Your task to perform on an android device: turn off javascript in the chrome app Image 0: 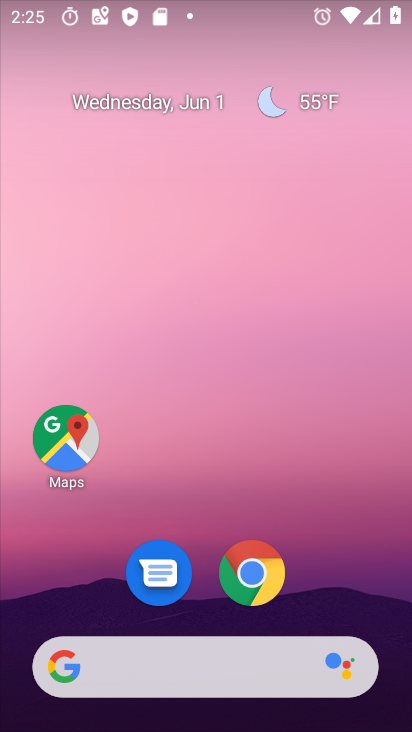
Step 0: drag from (357, 556) to (411, 106)
Your task to perform on an android device: turn off javascript in the chrome app Image 1: 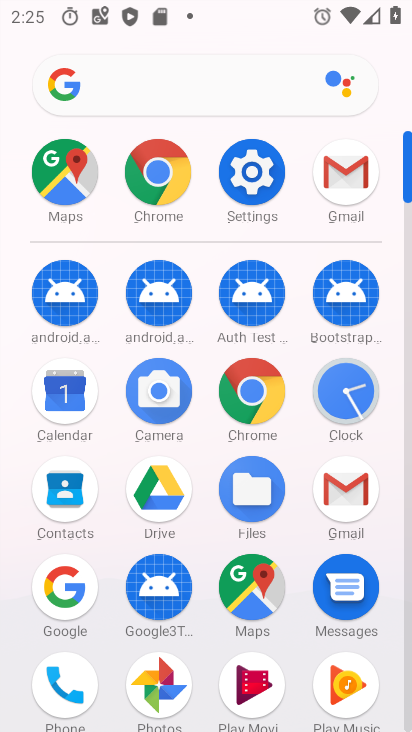
Step 1: click (137, 189)
Your task to perform on an android device: turn off javascript in the chrome app Image 2: 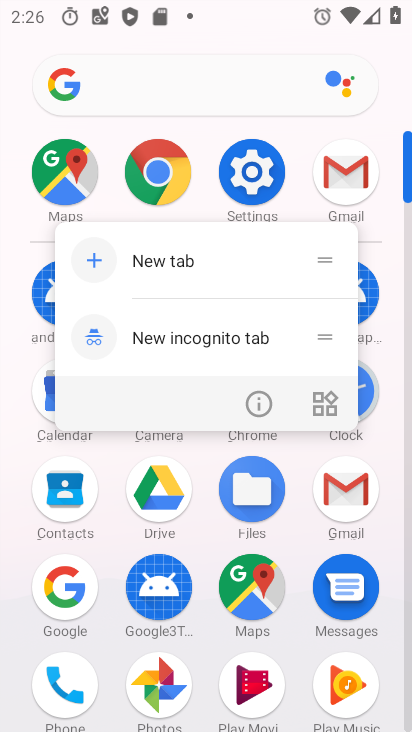
Step 2: click (144, 181)
Your task to perform on an android device: turn off javascript in the chrome app Image 3: 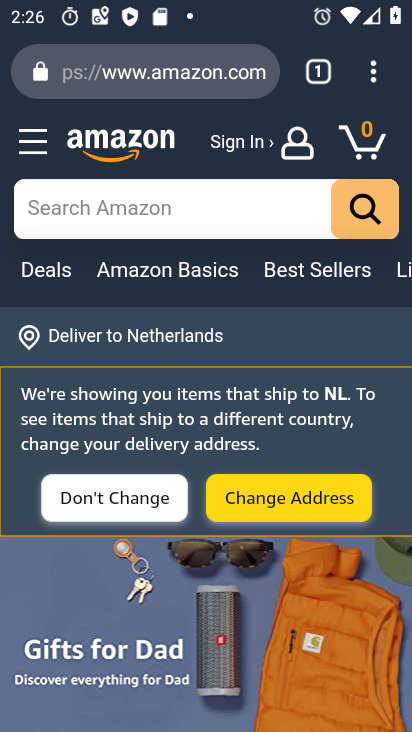
Step 3: drag from (370, 73) to (115, 568)
Your task to perform on an android device: turn off javascript in the chrome app Image 4: 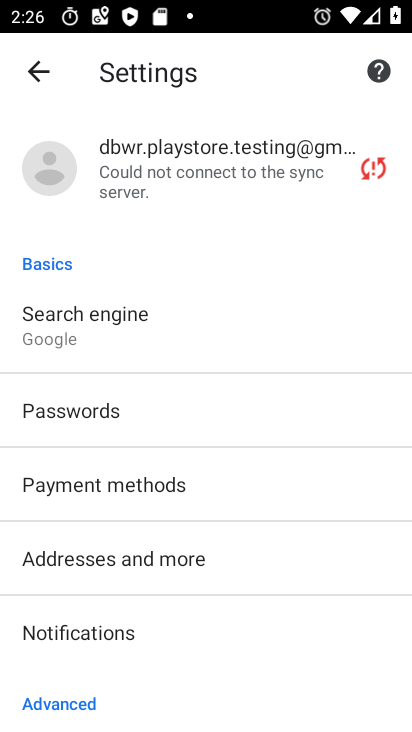
Step 4: drag from (115, 568) to (141, 187)
Your task to perform on an android device: turn off javascript in the chrome app Image 5: 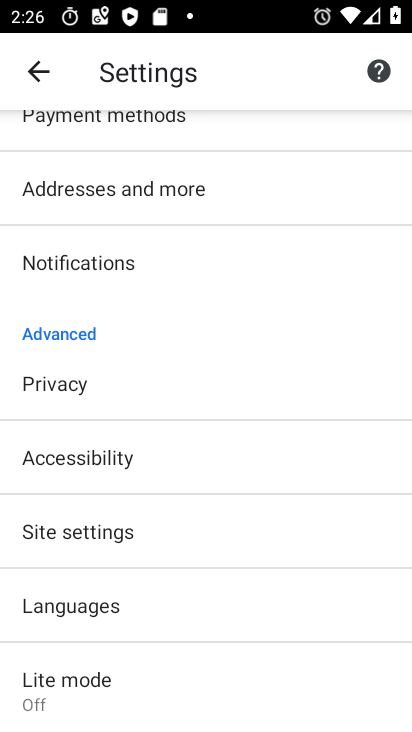
Step 5: click (98, 533)
Your task to perform on an android device: turn off javascript in the chrome app Image 6: 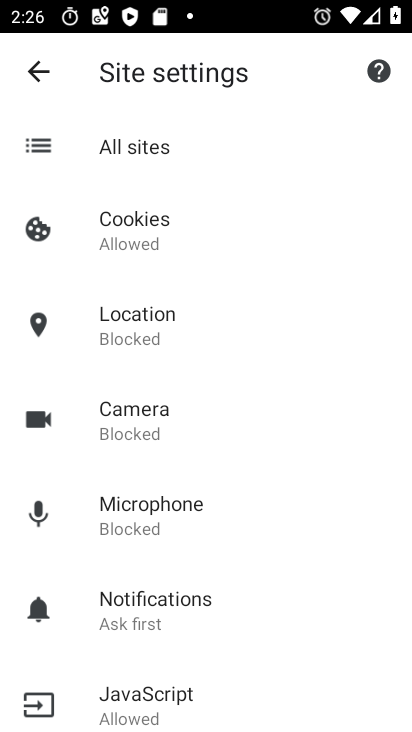
Step 6: drag from (120, 660) to (180, 395)
Your task to perform on an android device: turn off javascript in the chrome app Image 7: 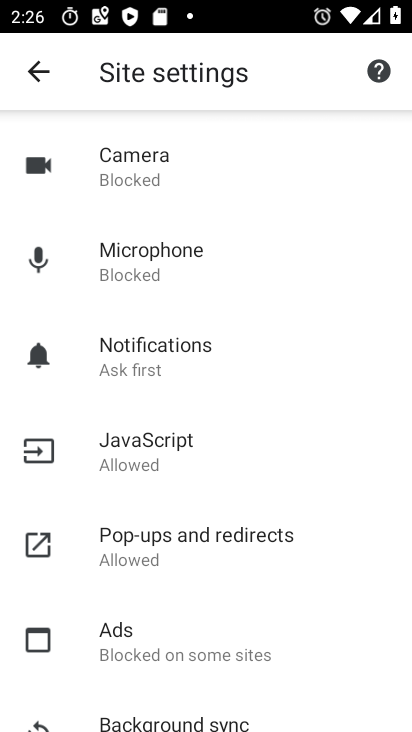
Step 7: click (161, 445)
Your task to perform on an android device: turn off javascript in the chrome app Image 8: 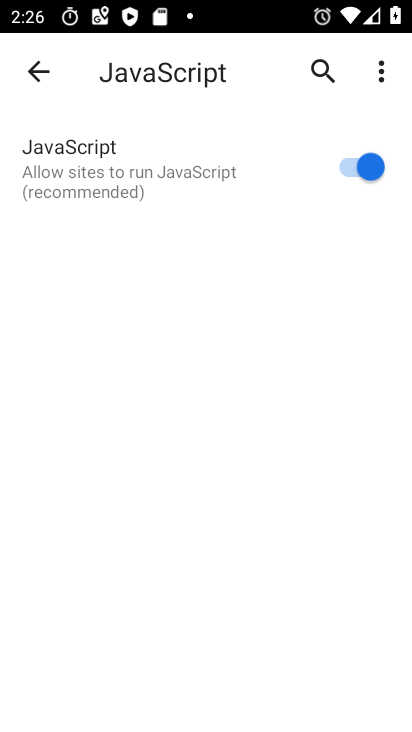
Step 8: click (369, 170)
Your task to perform on an android device: turn off javascript in the chrome app Image 9: 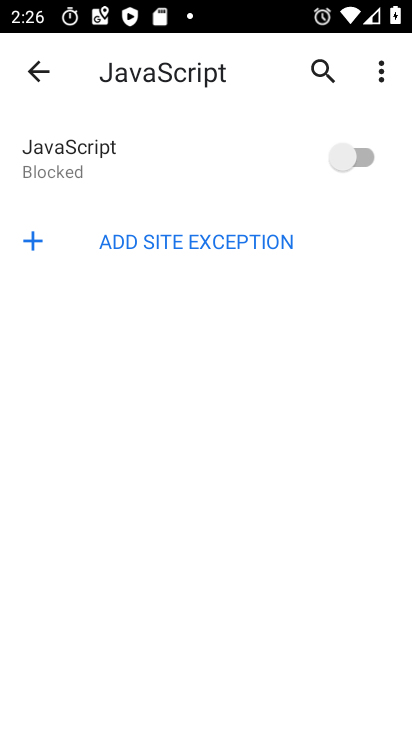
Step 9: task complete